Your task to perform on an android device: see tabs open on other devices in the chrome app Image 0: 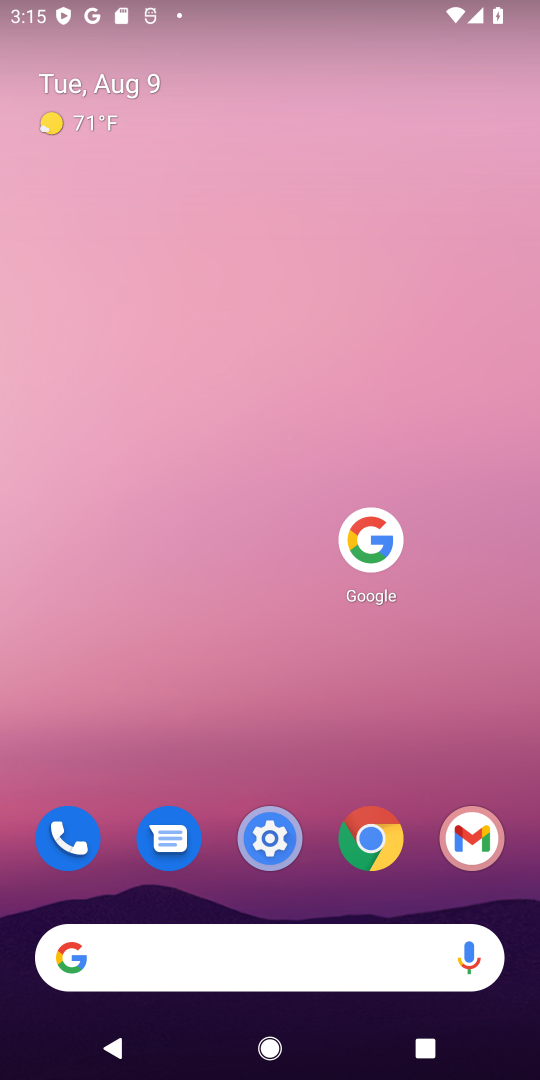
Step 0: drag from (503, 676) to (477, 5)
Your task to perform on an android device: see tabs open on other devices in the chrome app Image 1: 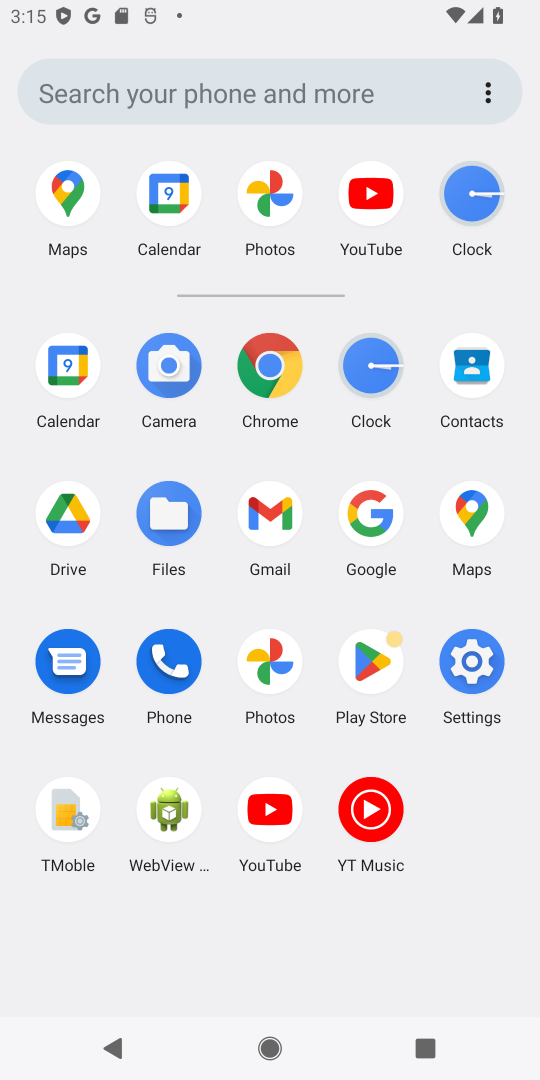
Step 1: click (273, 362)
Your task to perform on an android device: see tabs open on other devices in the chrome app Image 2: 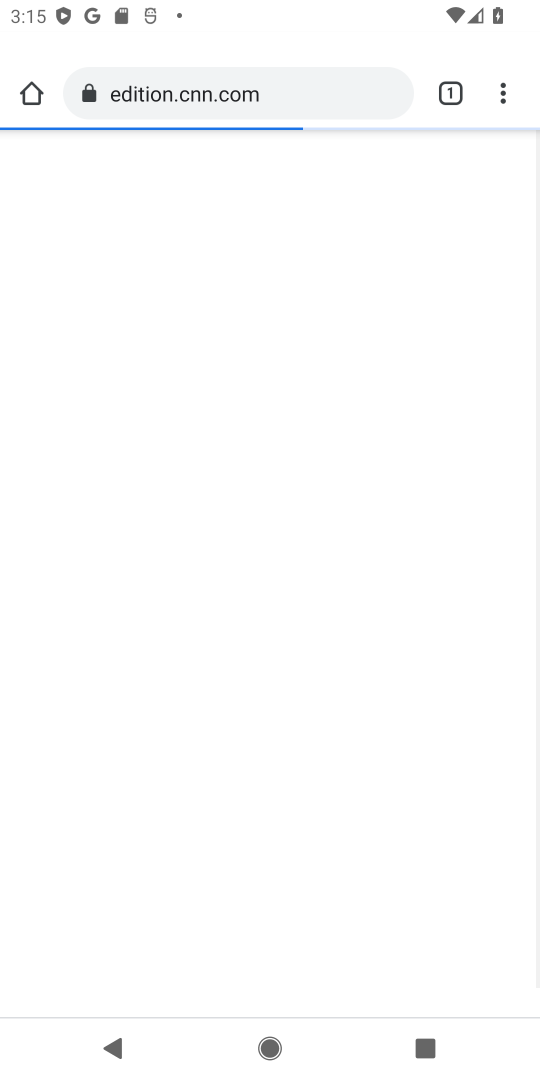
Step 2: task complete